Your task to perform on an android device: change notification settings in the gmail app Image 0: 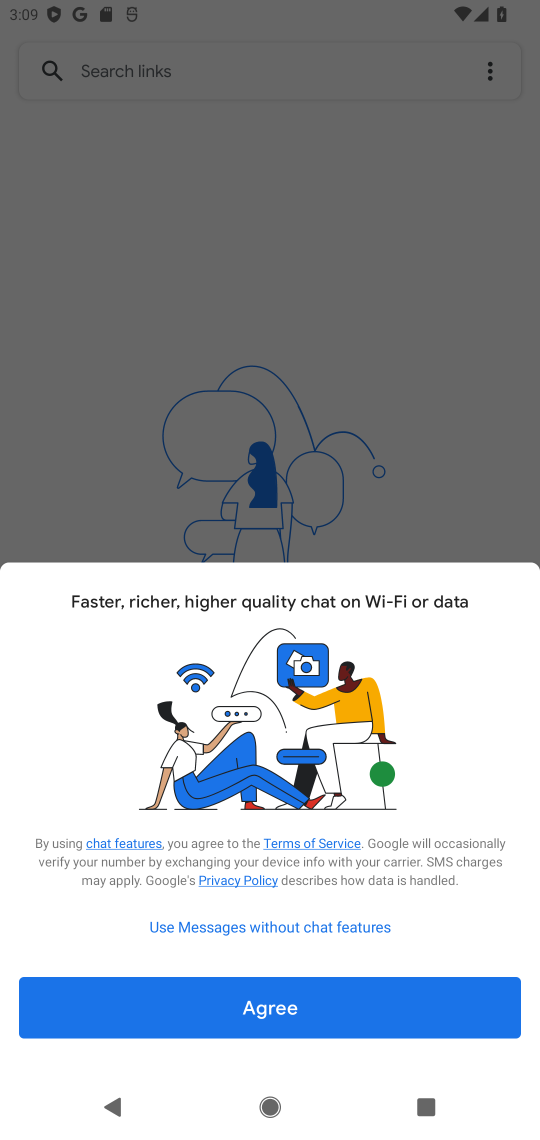
Step 0: press home button
Your task to perform on an android device: change notification settings in the gmail app Image 1: 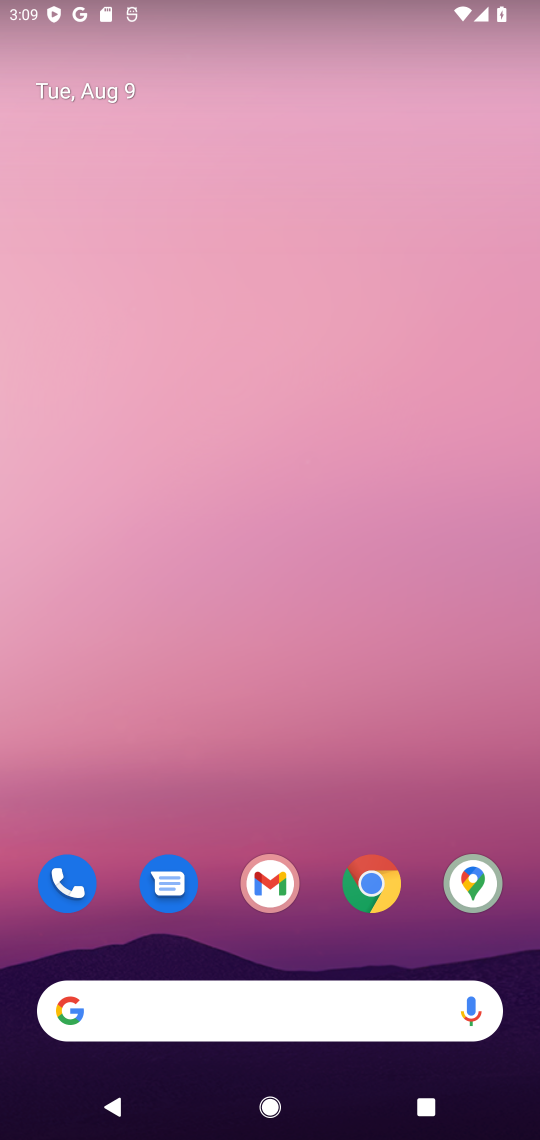
Step 1: click (265, 886)
Your task to perform on an android device: change notification settings in the gmail app Image 2: 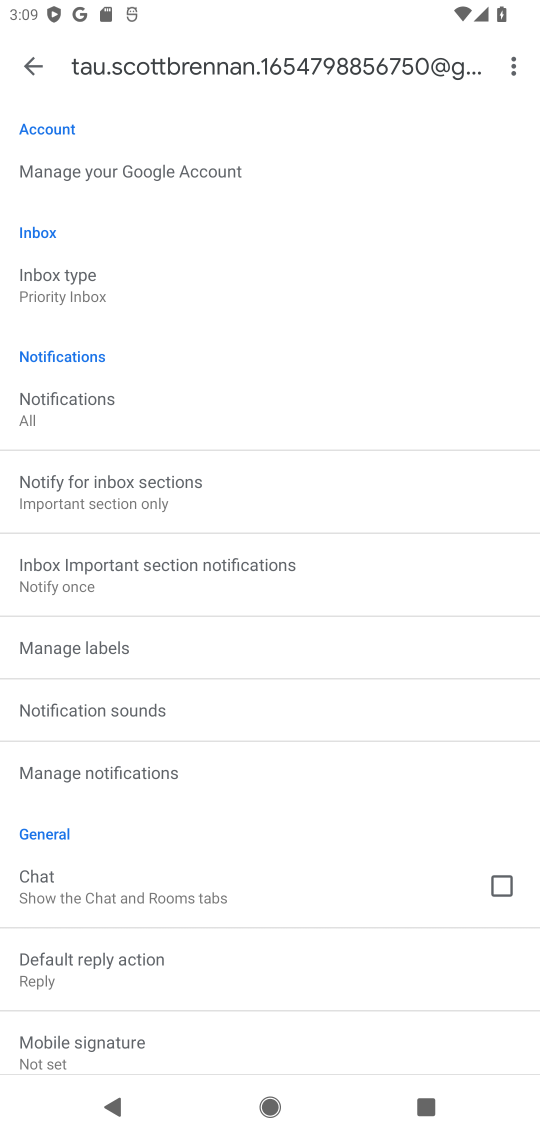
Step 2: click (86, 765)
Your task to perform on an android device: change notification settings in the gmail app Image 3: 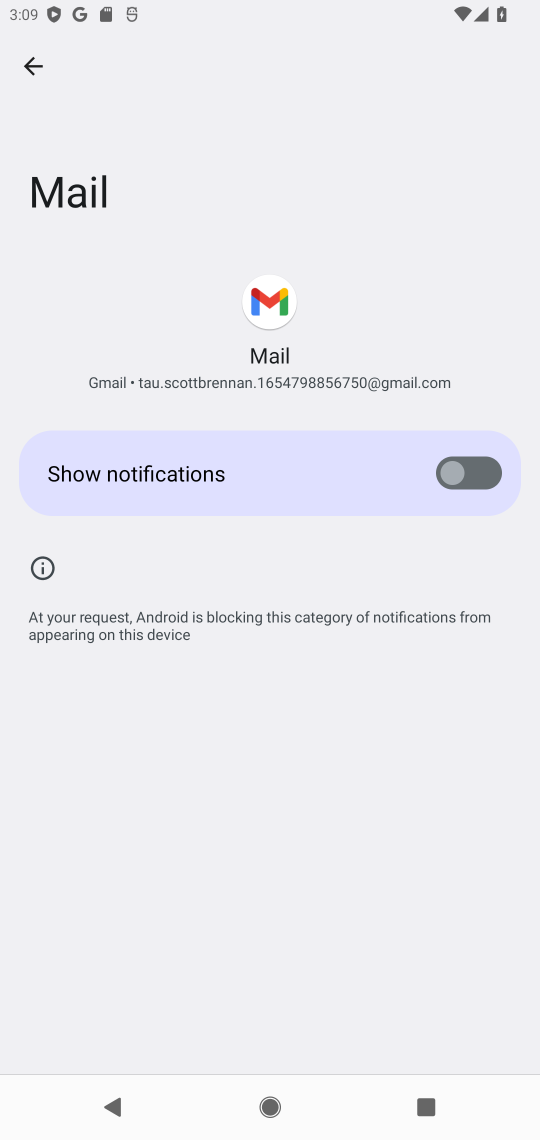
Step 3: click (497, 472)
Your task to perform on an android device: change notification settings in the gmail app Image 4: 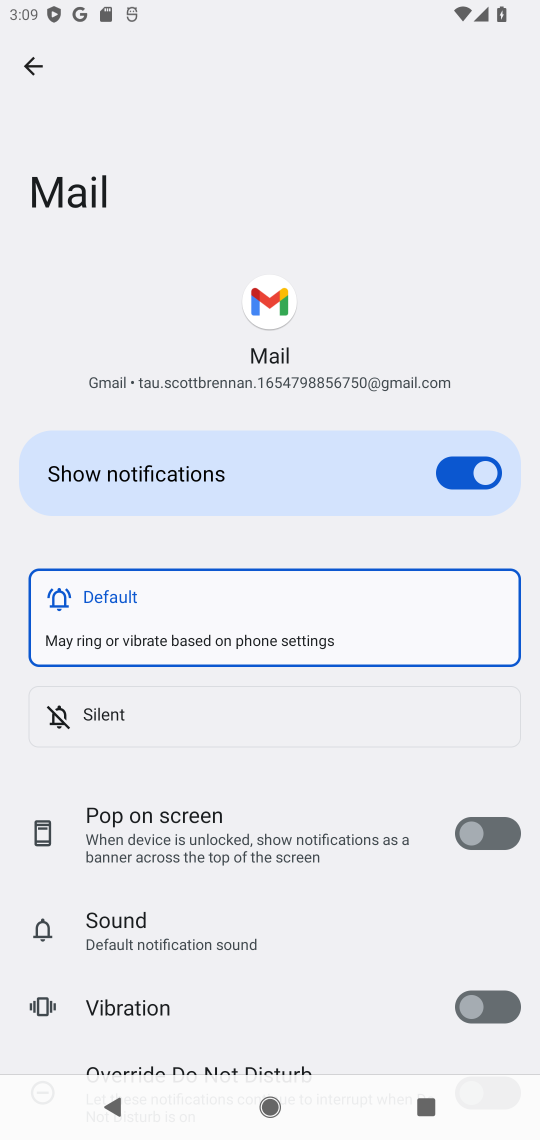
Step 4: task complete